Your task to perform on an android device: turn on priority inbox in the gmail app Image 0: 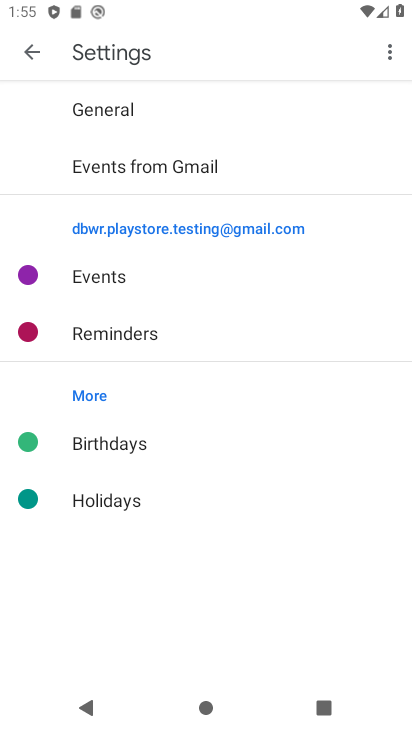
Step 0: press home button
Your task to perform on an android device: turn on priority inbox in the gmail app Image 1: 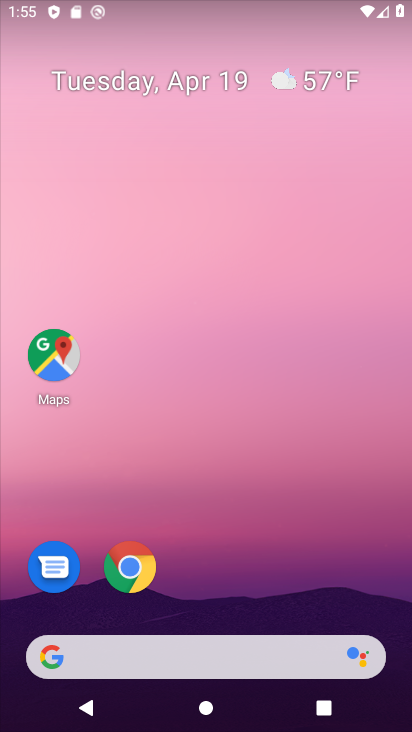
Step 1: drag from (377, 602) to (340, 104)
Your task to perform on an android device: turn on priority inbox in the gmail app Image 2: 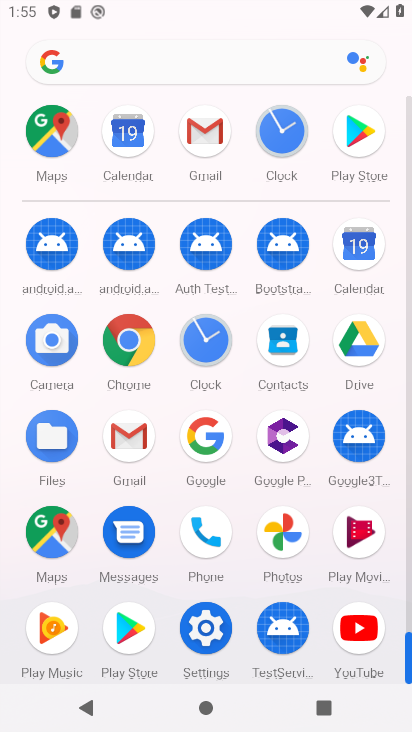
Step 2: click (127, 435)
Your task to perform on an android device: turn on priority inbox in the gmail app Image 3: 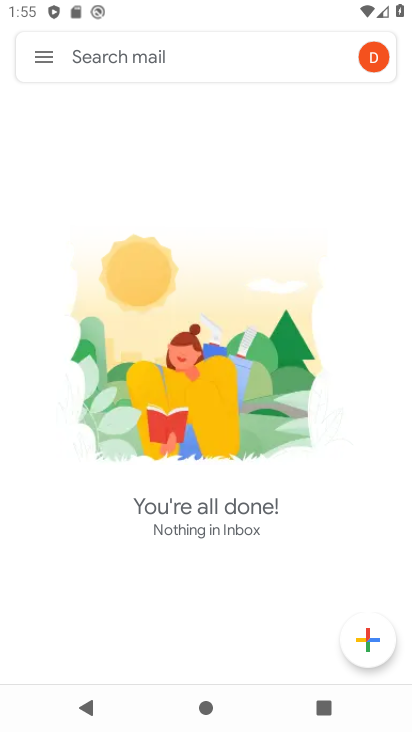
Step 3: click (41, 58)
Your task to perform on an android device: turn on priority inbox in the gmail app Image 4: 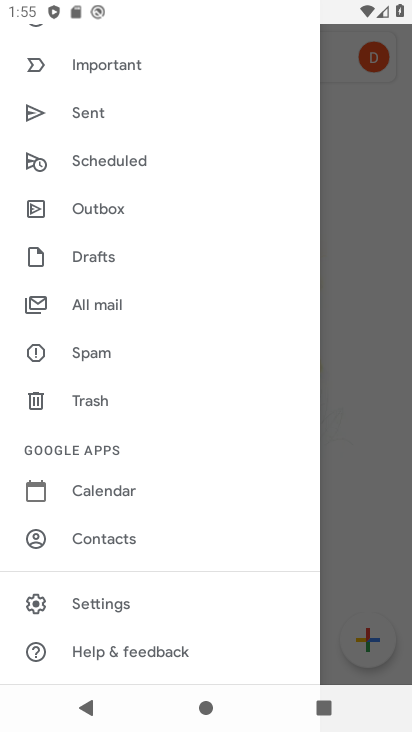
Step 4: click (97, 600)
Your task to perform on an android device: turn on priority inbox in the gmail app Image 5: 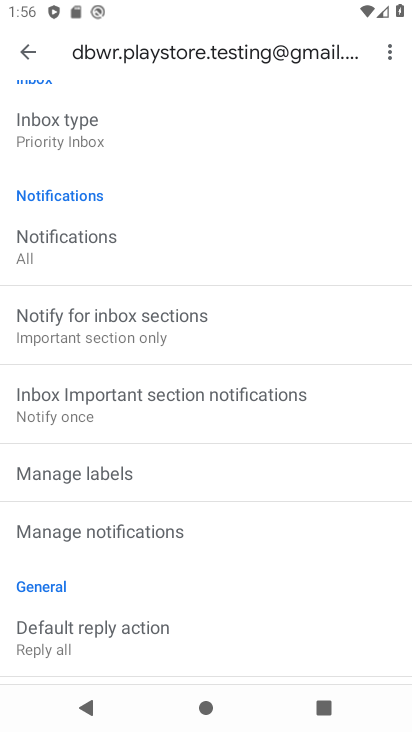
Step 5: click (62, 138)
Your task to perform on an android device: turn on priority inbox in the gmail app Image 6: 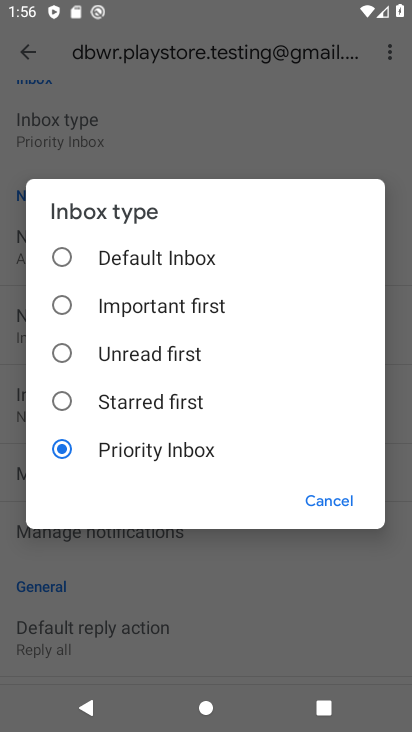
Step 6: click (129, 445)
Your task to perform on an android device: turn on priority inbox in the gmail app Image 7: 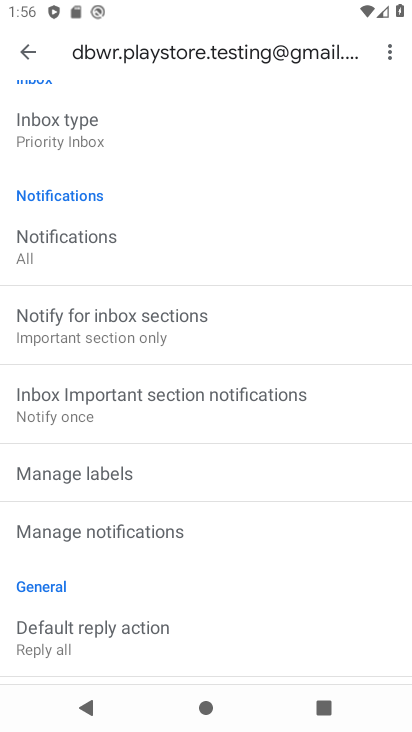
Step 7: task complete